Your task to perform on an android device: Go to CNN.com Image 0: 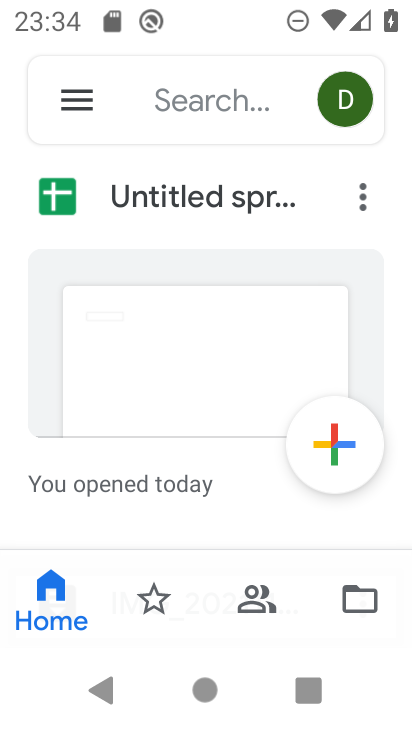
Step 0: press home button
Your task to perform on an android device: Go to CNN.com Image 1: 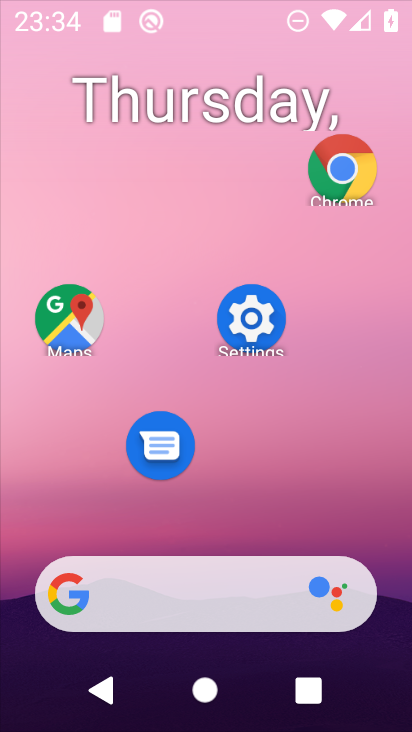
Step 1: drag from (231, 523) to (291, 9)
Your task to perform on an android device: Go to CNN.com Image 2: 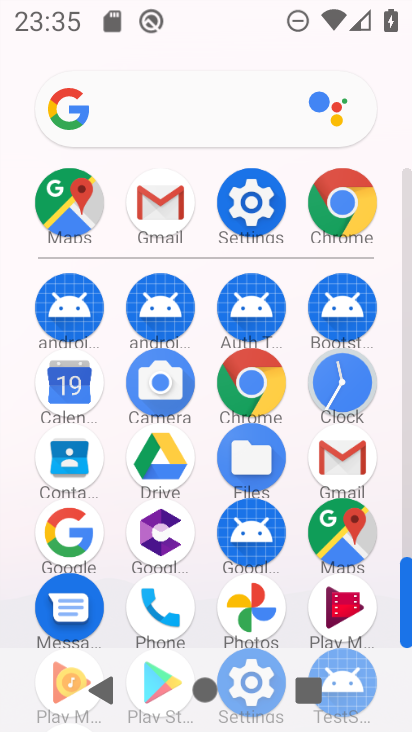
Step 2: click (199, 126)
Your task to perform on an android device: Go to CNN.com Image 3: 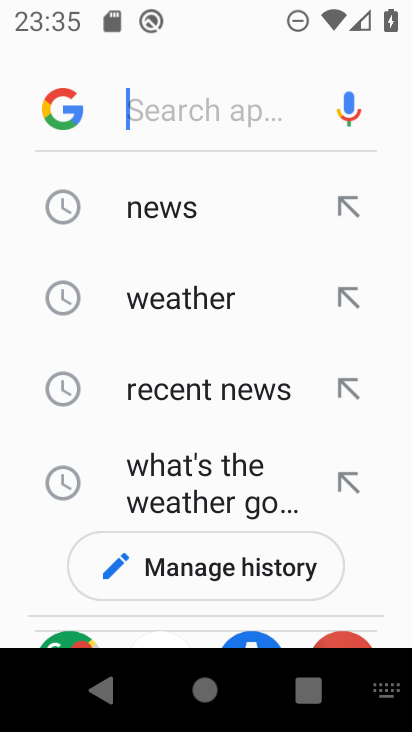
Step 3: drag from (236, 483) to (316, 68)
Your task to perform on an android device: Go to CNN.com Image 4: 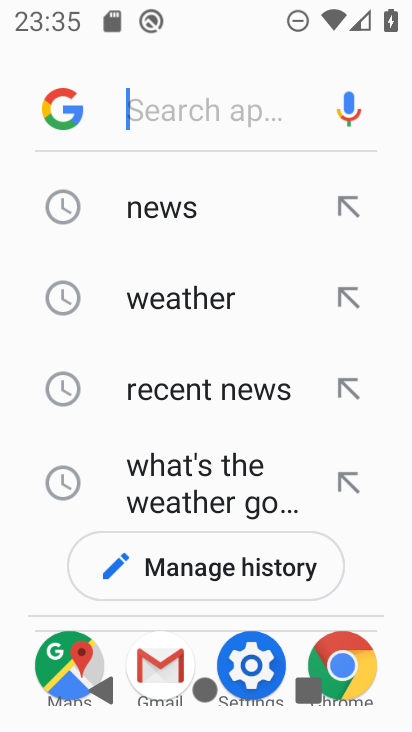
Step 4: type "cnn"
Your task to perform on an android device: Go to CNN.com Image 5: 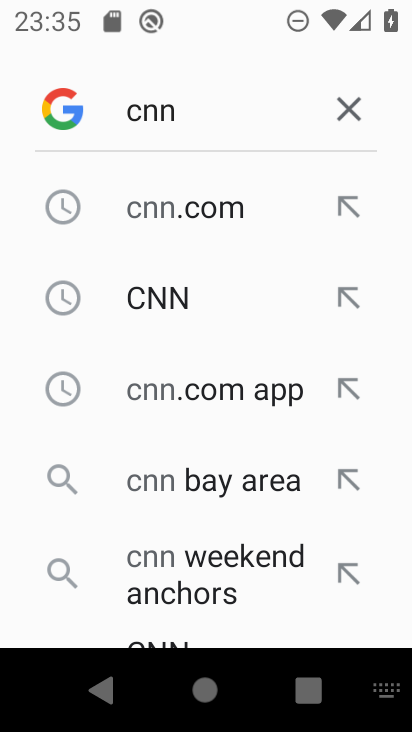
Step 5: click (164, 212)
Your task to perform on an android device: Go to CNN.com Image 6: 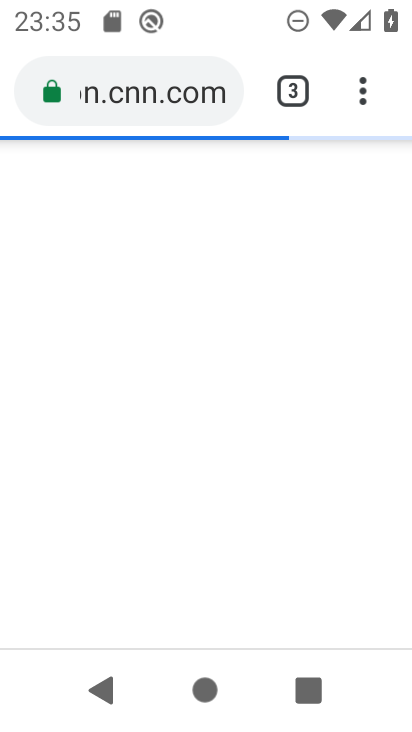
Step 6: drag from (245, 600) to (332, 50)
Your task to perform on an android device: Go to CNN.com Image 7: 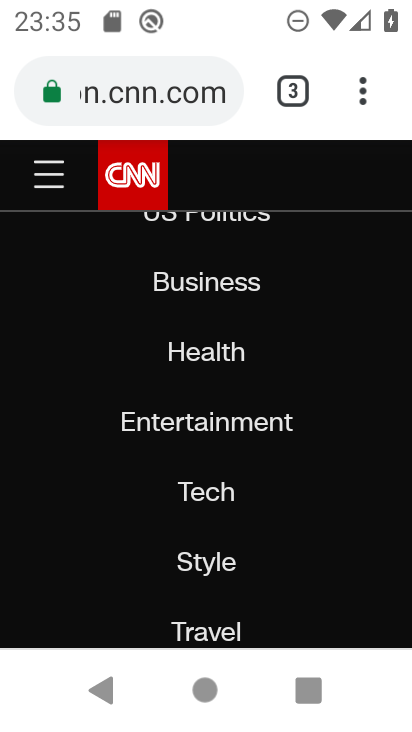
Step 7: click (401, 181)
Your task to perform on an android device: Go to CNN.com Image 8: 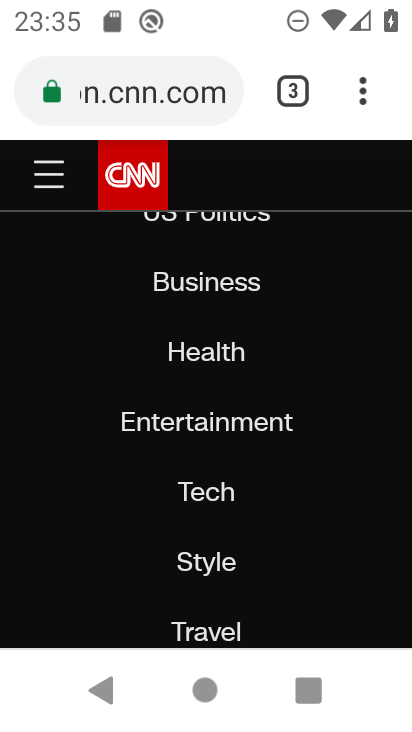
Step 8: task complete